Your task to perform on an android device: Show me the alarms in the clock app Image 0: 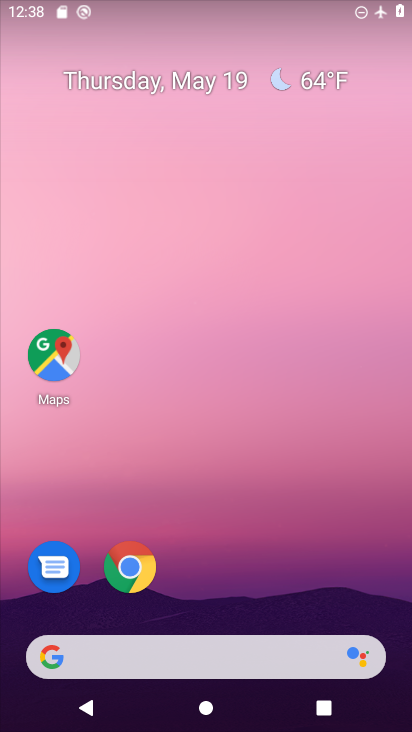
Step 0: drag from (212, 572) to (270, 140)
Your task to perform on an android device: Show me the alarms in the clock app Image 1: 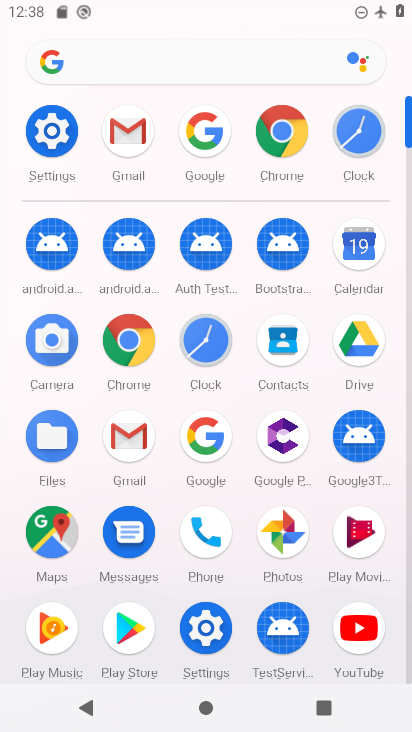
Step 1: click (362, 147)
Your task to perform on an android device: Show me the alarms in the clock app Image 2: 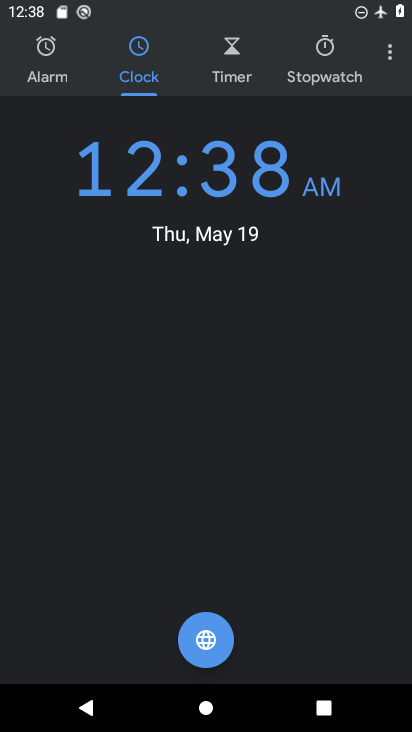
Step 2: click (56, 80)
Your task to perform on an android device: Show me the alarms in the clock app Image 3: 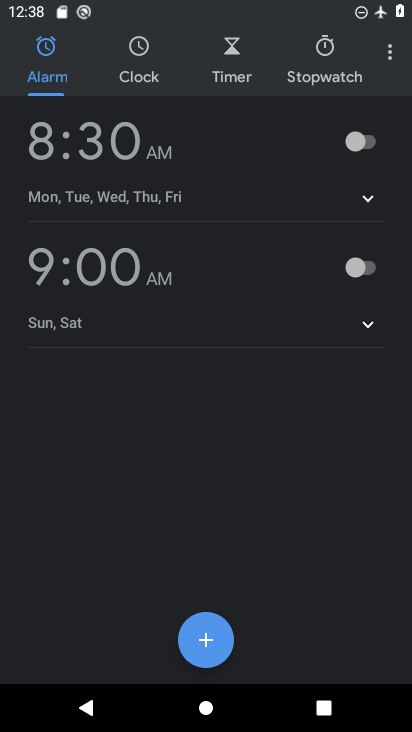
Step 3: task complete